Your task to perform on an android device: Open calendar and show me the first week of next month Image 0: 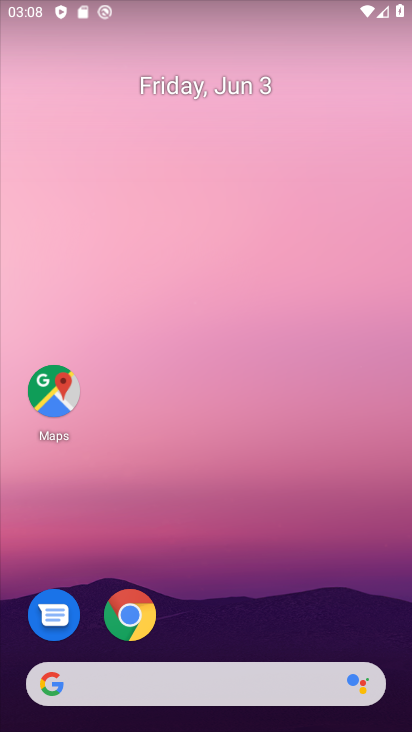
Step 0: drag from (278, 634) to (184, 86)
Your task to perform on an android device: Open calendar and show me the first week of next month Image 1: 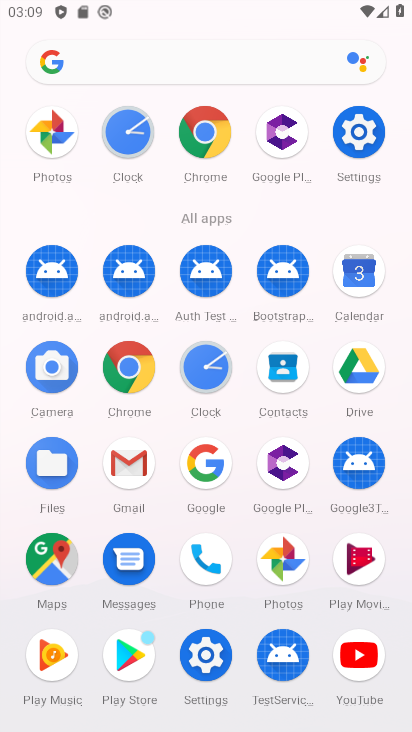
Step 1: click (366, 285)
Your task to perform on an android device: Open calendar and show me the first week of next month Image 2: 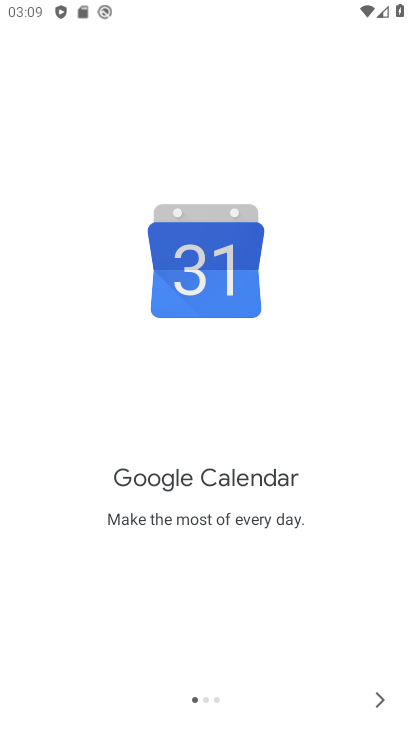
Step 2: click (378, 697)
Your task to perform on an android device: Open calendar and show me the first week of next month Image 3: 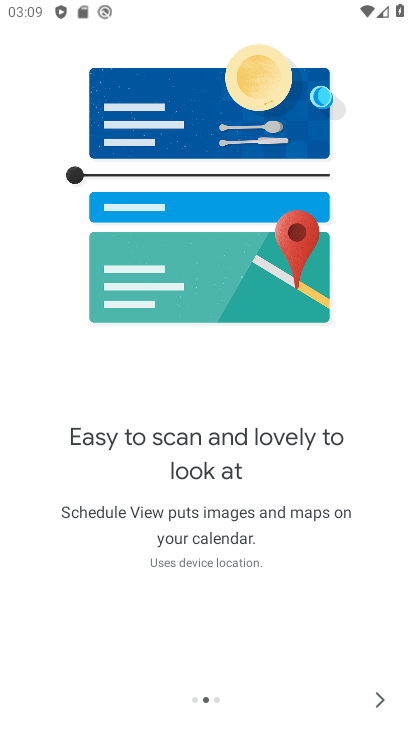
Step 3: click (378, 697)
Your task to perform on an android device: Open calendar and show me the first week of next month Image 4: 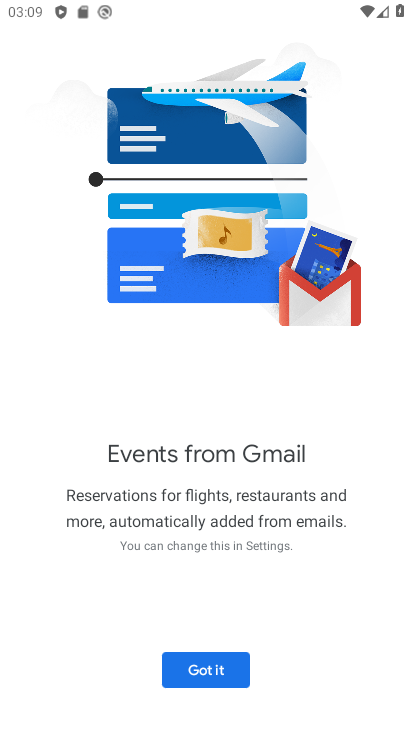
Step 4: click (234, 678)
Your task to perform on an android device: Open calendar and show me the first week of next month Image 5: 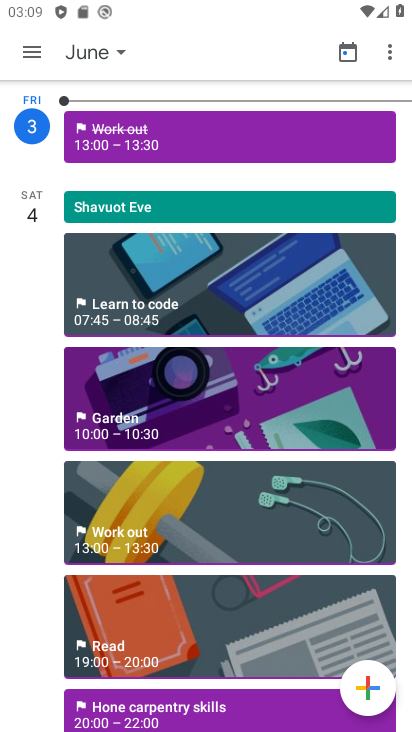
Step 5: click (37, 51)
Your task to perform on an android device: Open calendar and show me the first week of next month Image 6: 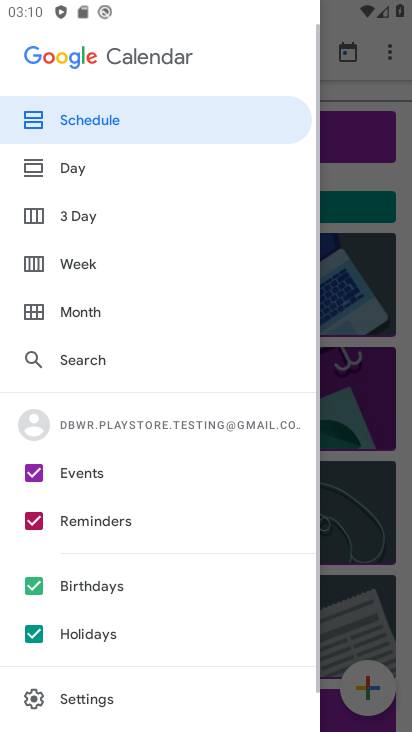
Step 6: click (98, 271)
Your task to perform on an android device: Open calendar and show me the first week of next month Image 7: 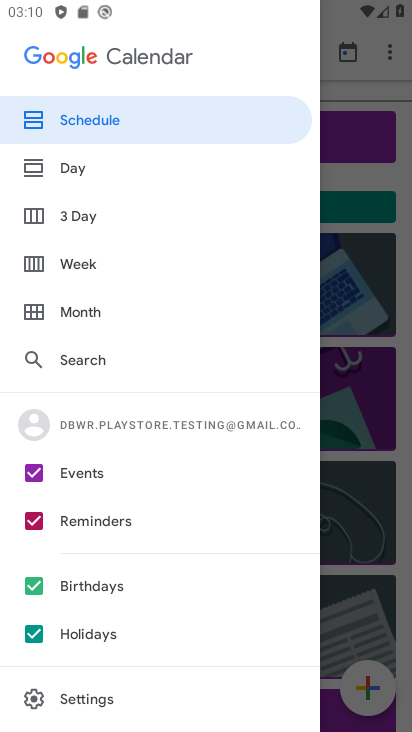
Step 7: click (90, 268)
Your task to perform on an android device: Open calendar and show me the first week of next month Image 8: 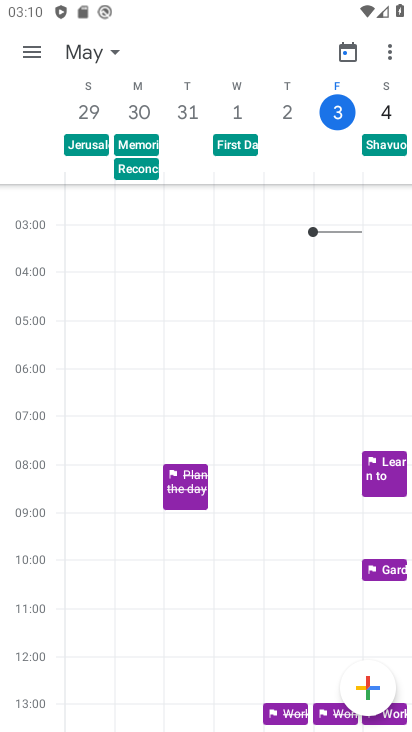
Step 8: task complete